Your task to perform on an android device: change text size in settings app Image 0: 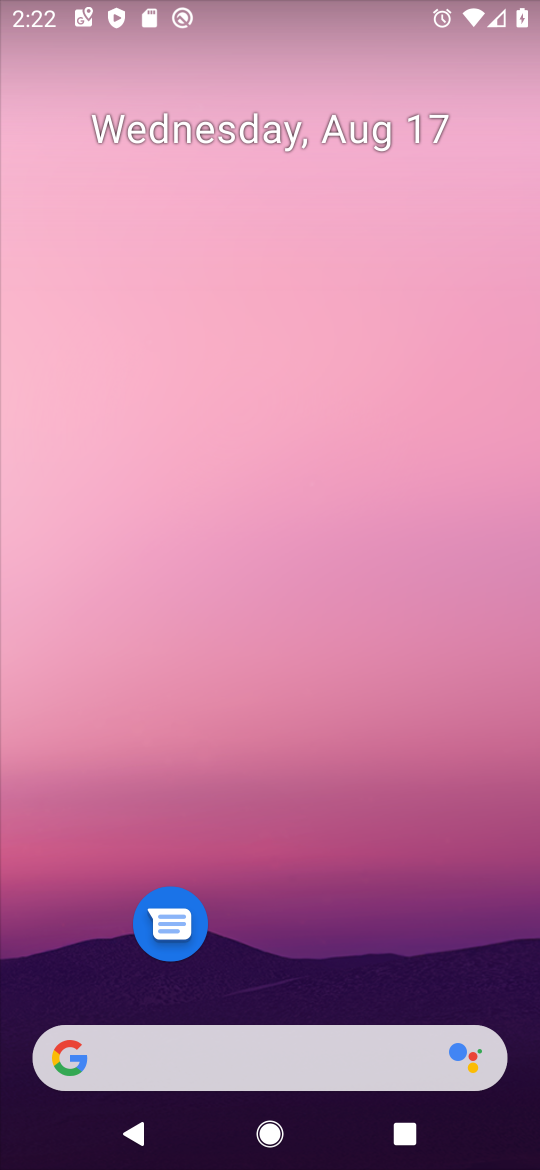
Step 0: drag from (342, 1020) to (226, 24)
Your task to perform on an android device: change text size in settings app Image 1: 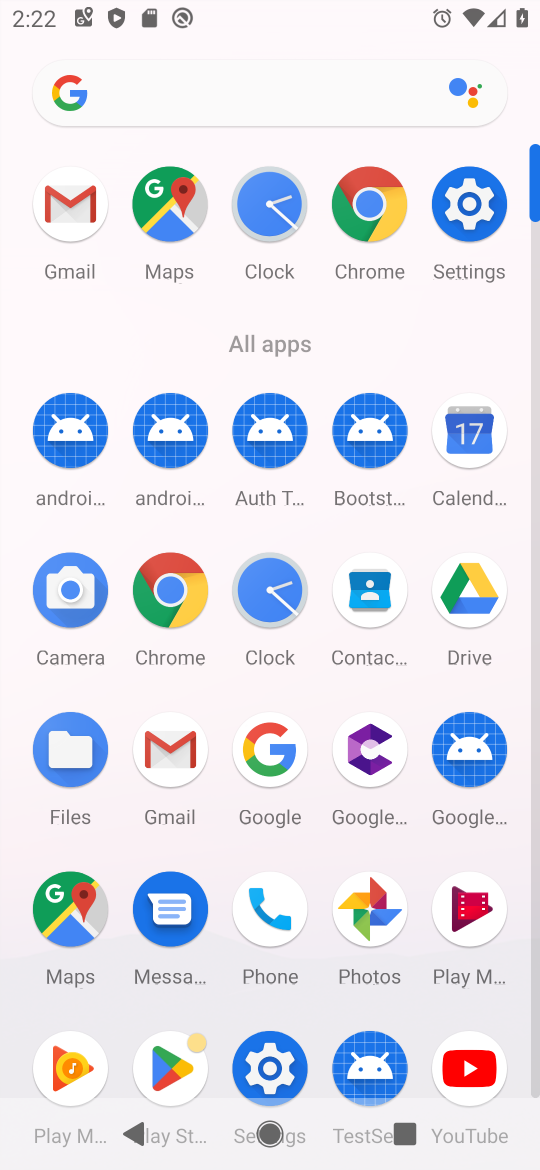
Step 1: click (266, 1044)
Your task to perform on an android device: change text size in settings app Image 2: 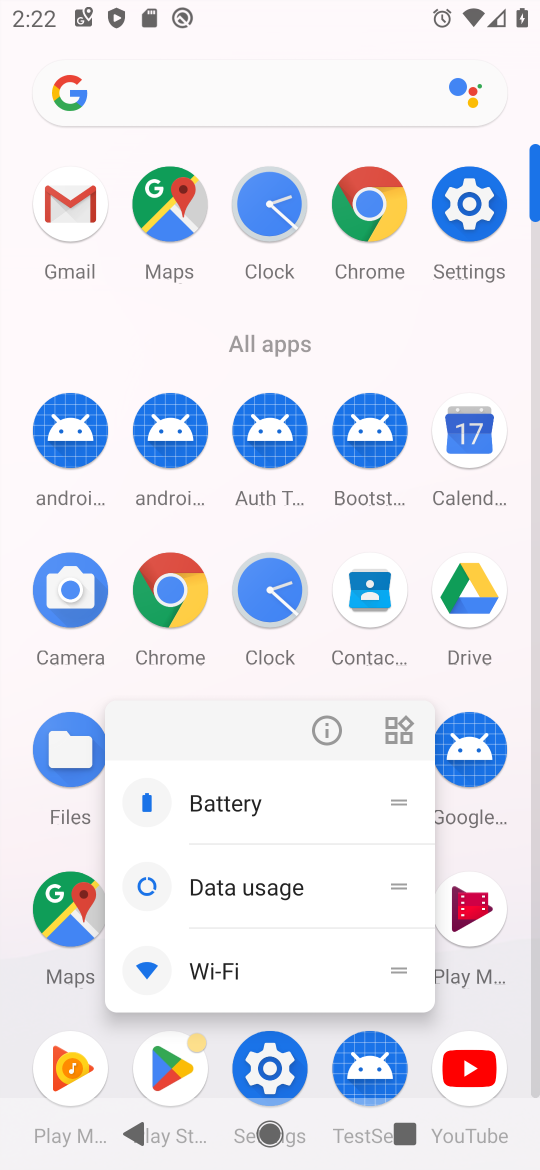
Step 2: click (267, 1058)
Your task to perform on an android device: change text size in settings app Image 3: 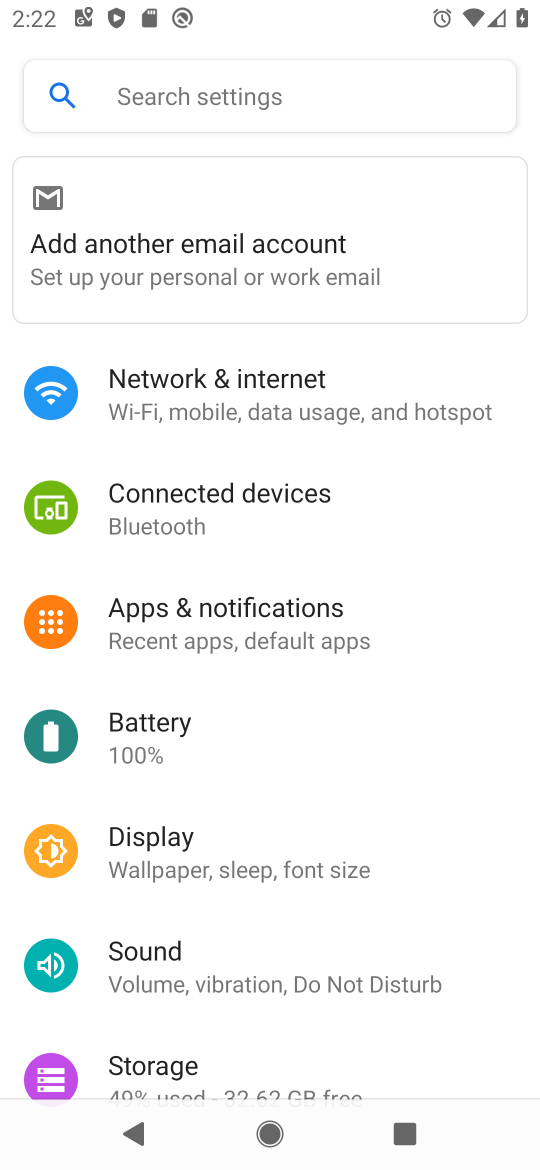
Step 3: drag from (170, 965) to (88, 208)
Your task to perform on an android device: change text size in settings app Image 4: 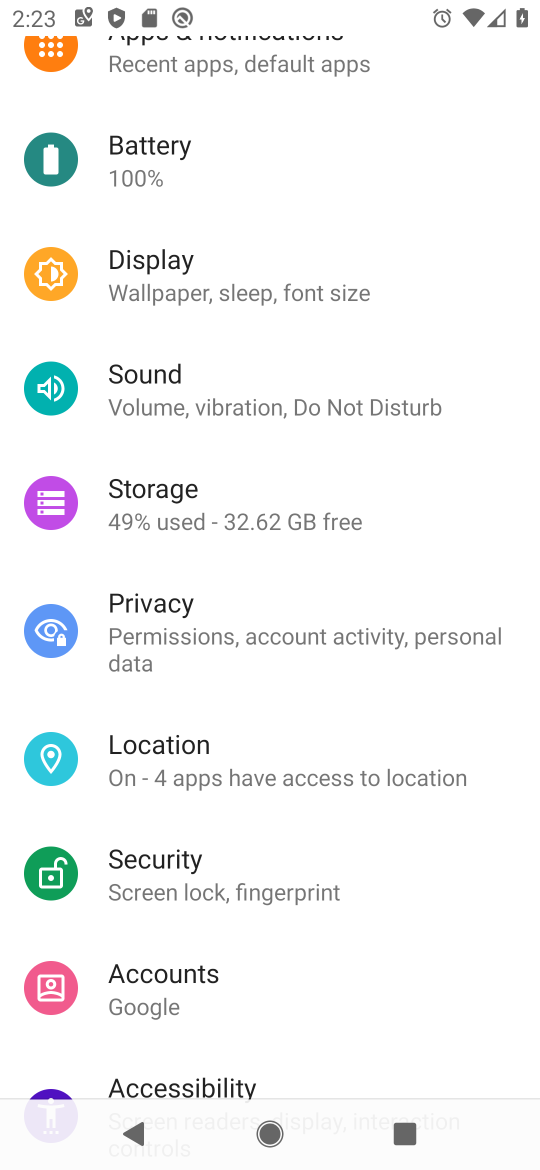
Step 4: click (129, 296)
Your task to perform on an android device: change text size in settings app Image 5: 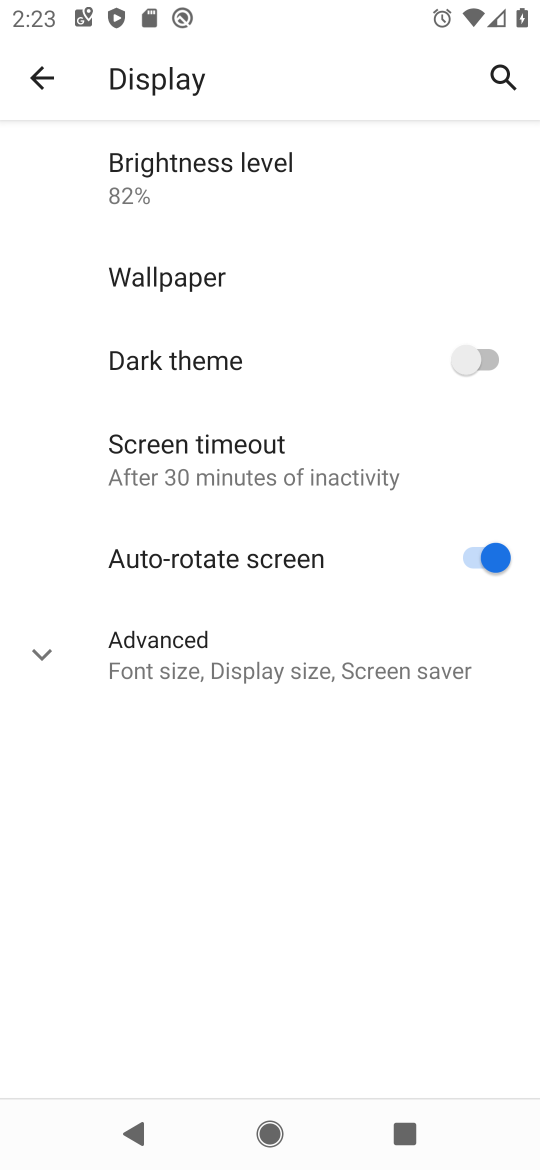
Step 5: click (203, 670)
Your task to perform on an android device: change text size in settings app Image 6: 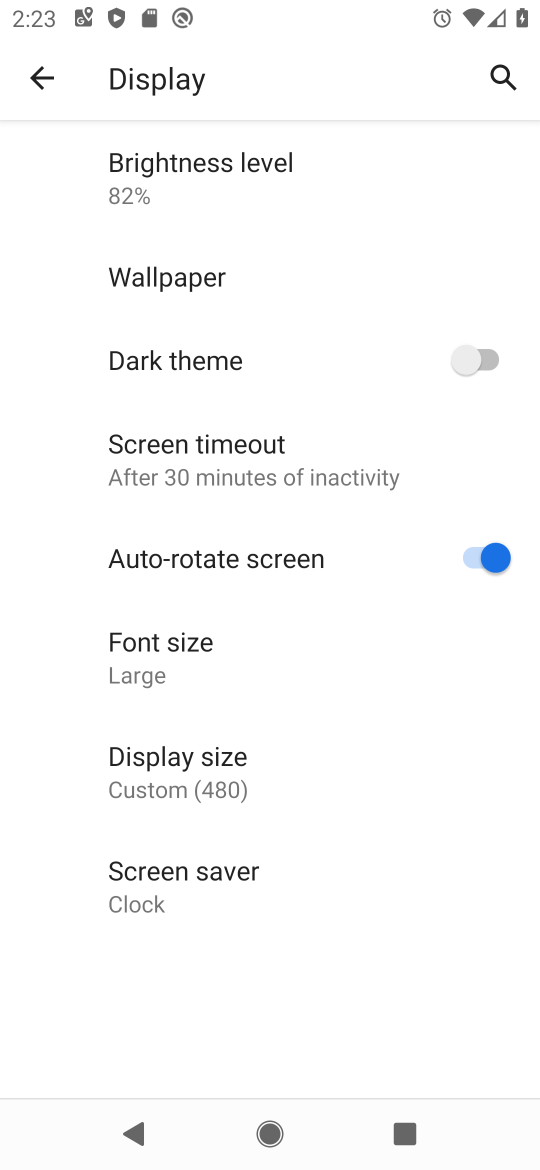
Step 6: click (199, 664)
Your task to perform on an android device: change text size in settings app Image 7: 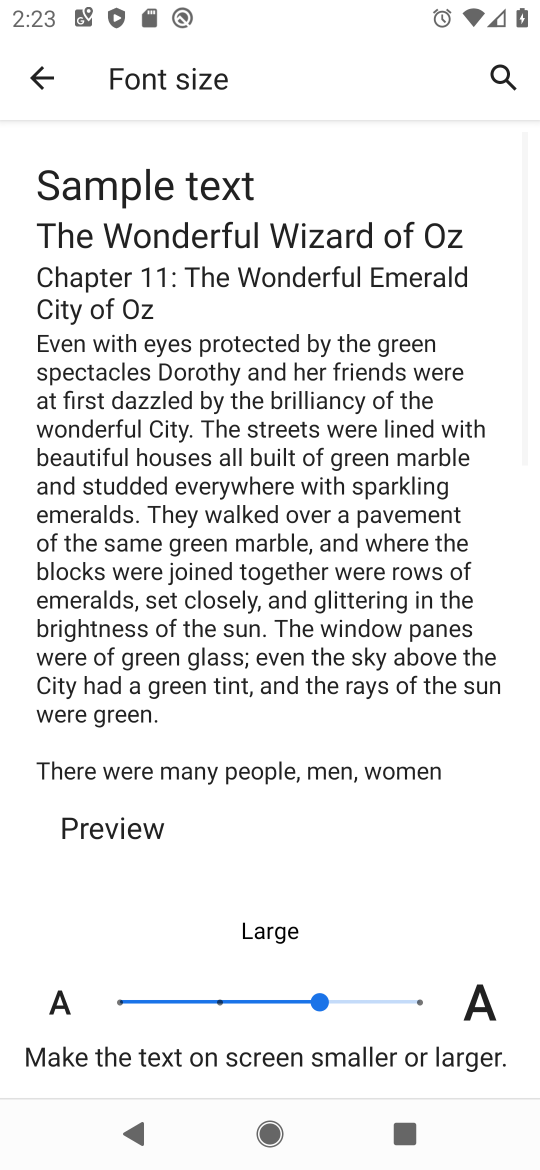
Step 7: click (217, 998)
Your task to perform on an android device: change text size in settings app Image 8: 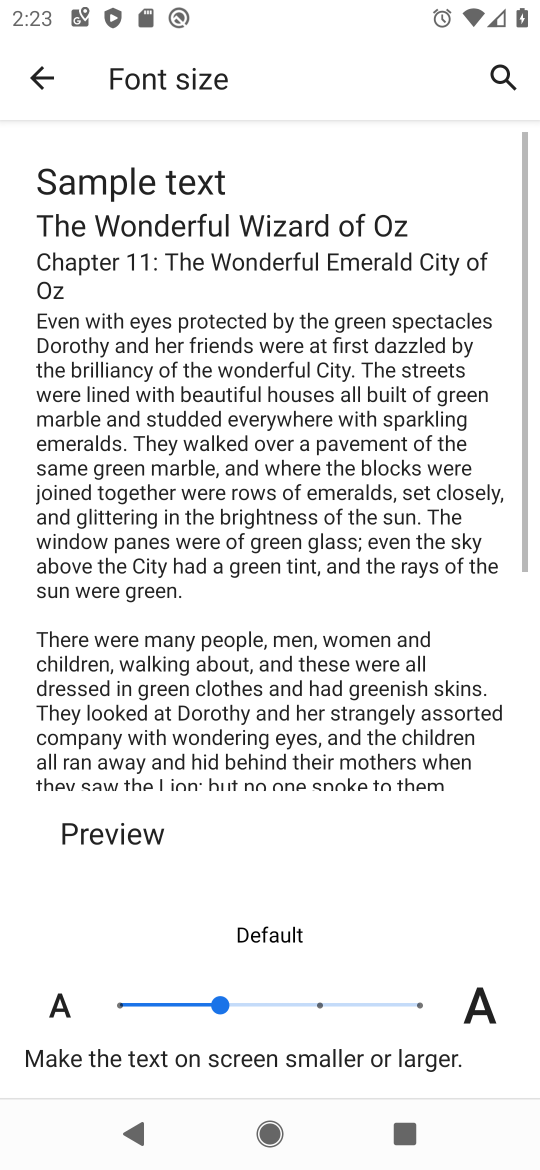
Step 8: task complete